Your task to perform on an android device: Open settings Image 0: 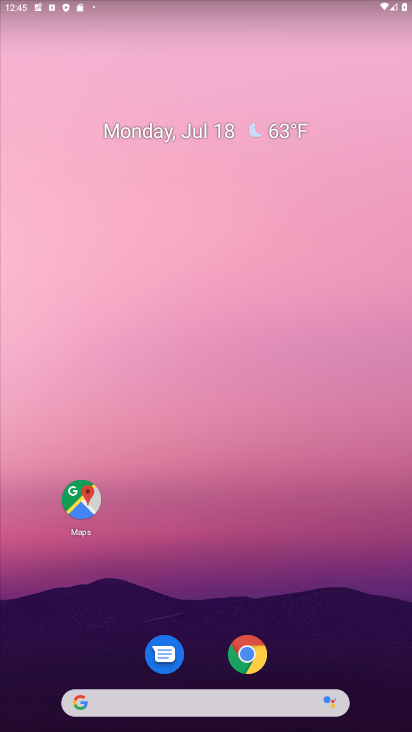
Step 0: drag from (209, 602) to (272, 157)
Your task to perform on an android device: Open settings Image 1: 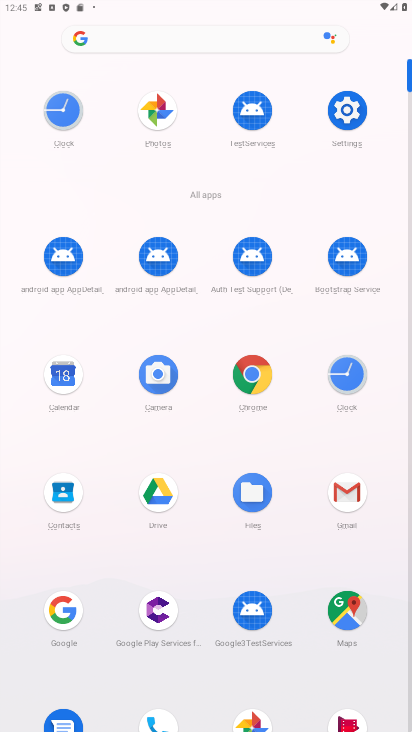
Step 1: click (347, 128)
Your task to perform on an android device: Open settings Image 2: 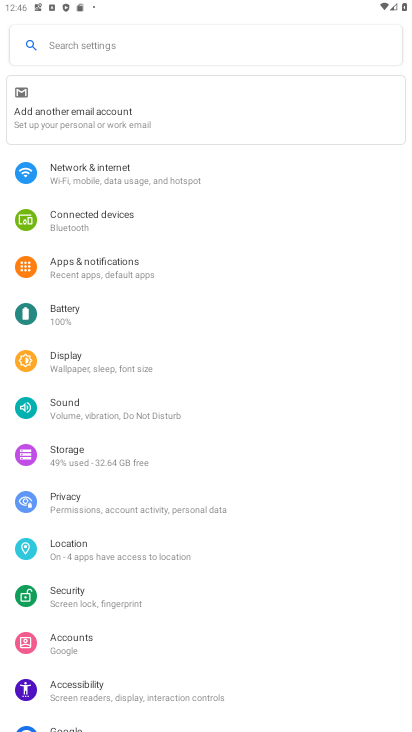
Step 2: task complete